Your task to perform on an android device: move an email to a new category in the gmail app Image 0: 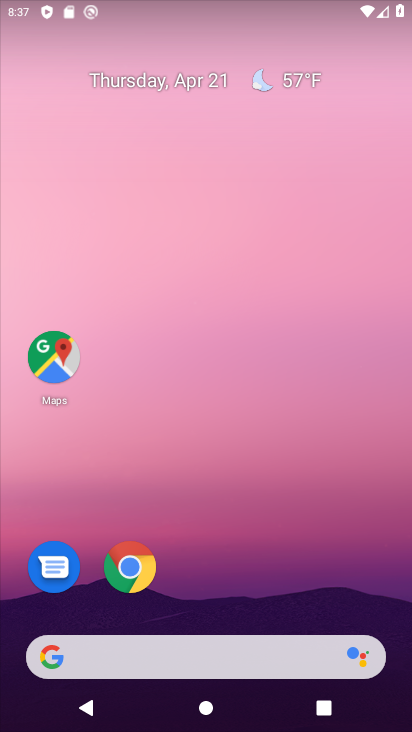
Step 0: drag from (207, 628) to (180, 51)
Your task to perform on an android device: move an email to a new category in the gmail app Image 1: 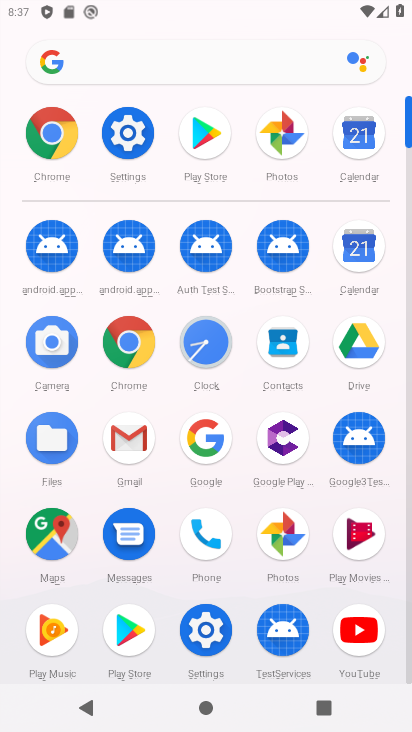
Step 1: click (125, 449)
Your task to perform on an android device: move an email to a new category in the gmail app Image 2: 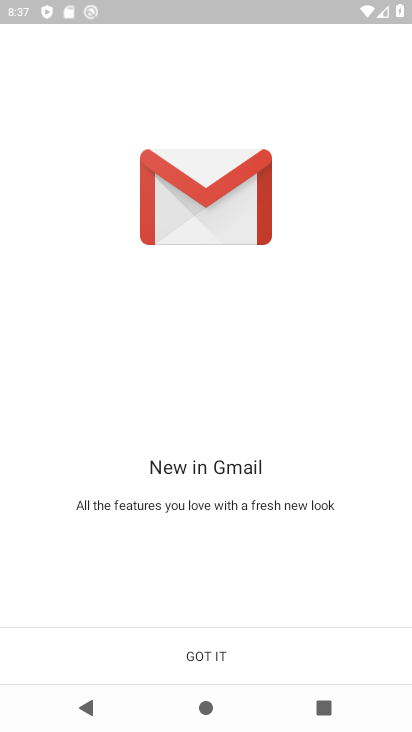
Step 2: click (204, 649)
Your task to perform on an android device: move an email to a new category in the gmail app Image 3: 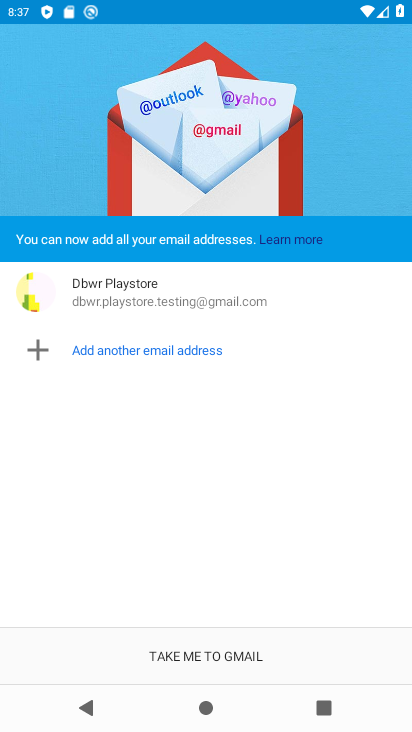
Step 3: click (200, 646)
Your task to perform on an android device: move an email to a new category in the gmail app Image 4: 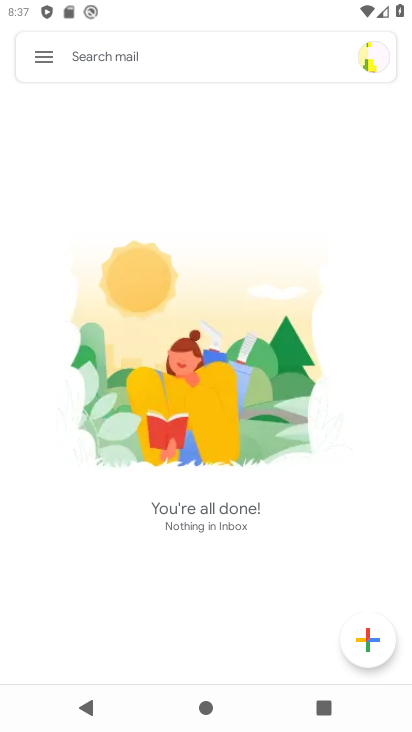
Step 4: task complete